Your task to perform on an android device: Clear the shopping cart on ebay.com. Search for bose soundlink mini on ebay.com, select the first entry, add it to the cart, then select checkout. Image 0: 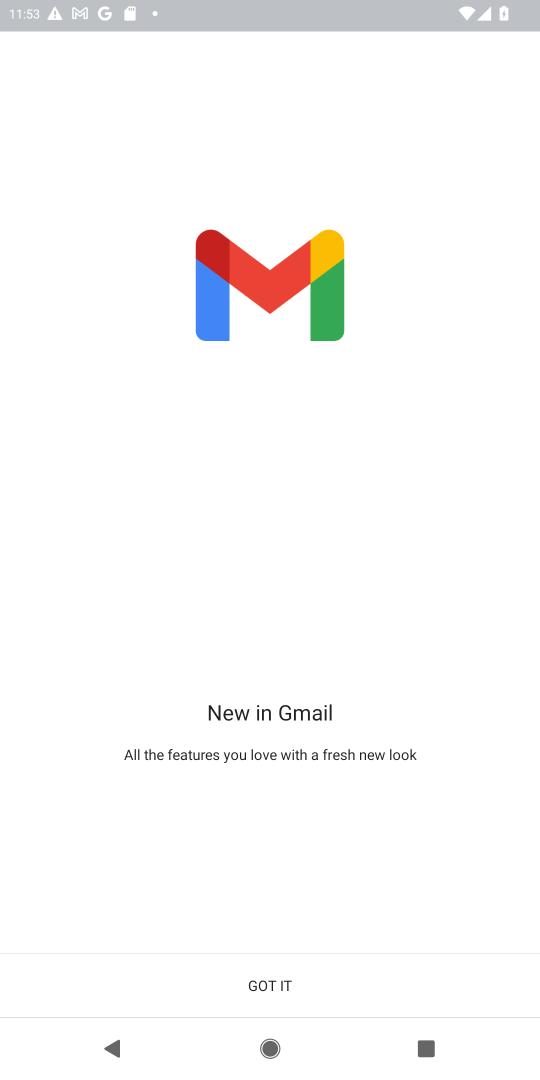
Step 0: press home button
Your task to perform on an android device: Clear the shopping cart on ebay.com. Search for bose soundlink mini on ebay.com, select the first entry, add it to the cart, then select checkout. Image 1: 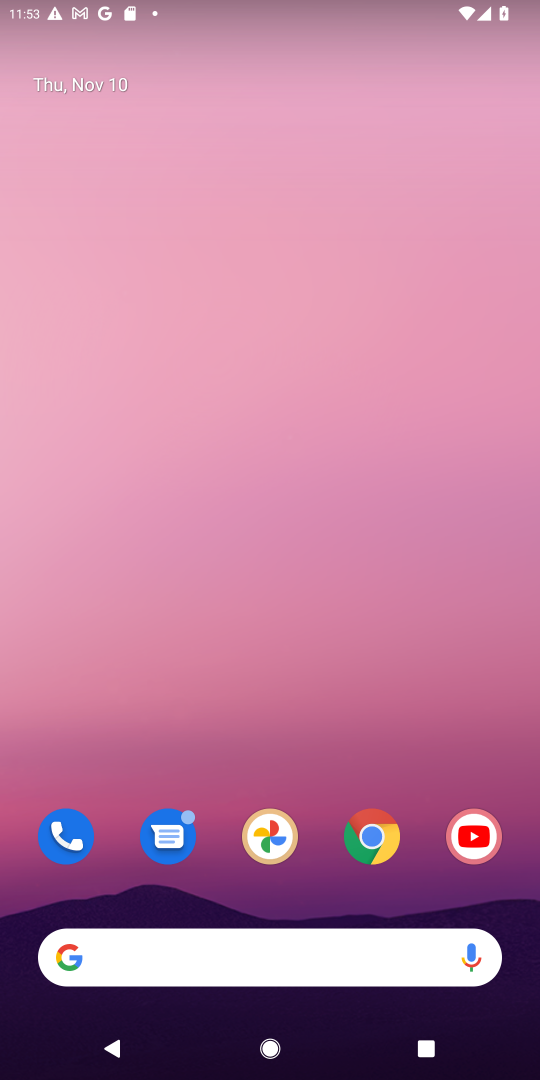
Step 1: click (273, 966)
Your task to perform on an android device: Clear the shopping cart on ebay.com. Search for bose soundlink mini on ebay.com, select the first entry, add it to the cart, then select checkout. Image 2: 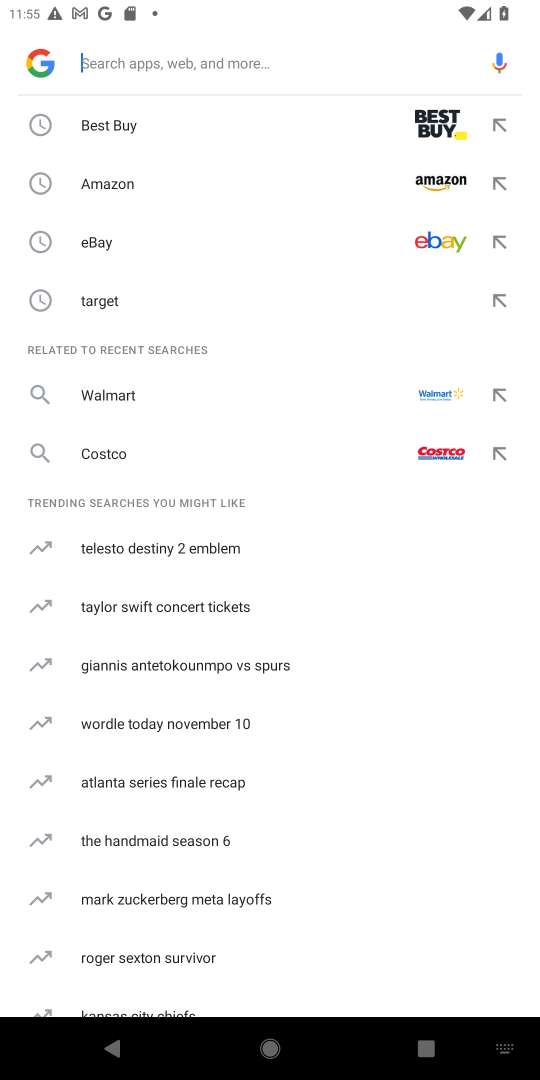
Step 2: click (129, 242)
Your task to perform on an android device: Clear the shopping cart on ebay.com. Search for bose soundlink mini on ebay.com, select the first entry, add it to the cart, then select checkout. Image 3: 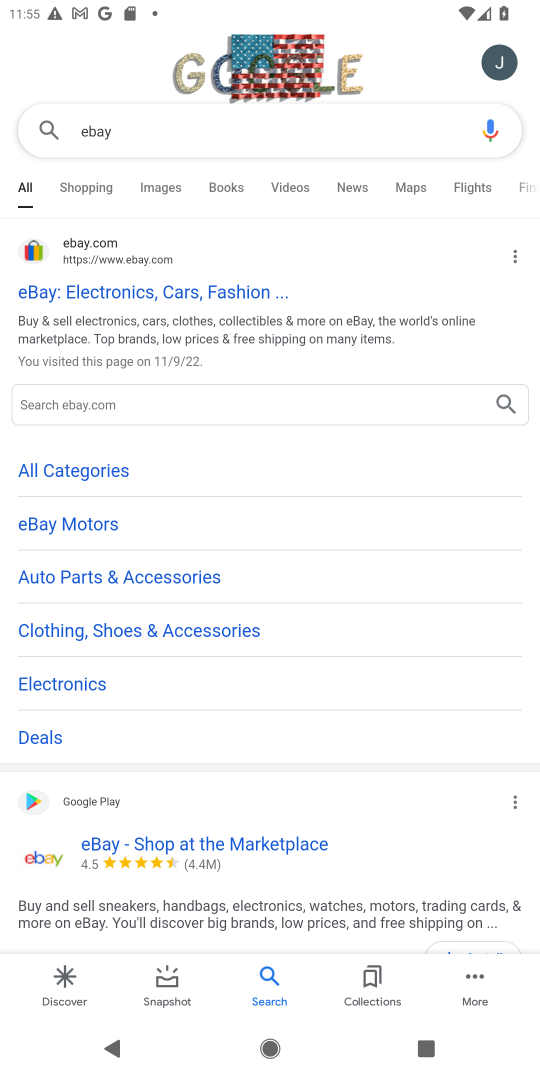
Step 3: click (101, 247)
Your task to perform on an android device: Clear the shopping cart on ebay.com. Search for bose soundlink mini on ebay.com, select the first entry, add it to the cart, then select checkout. Image 4: 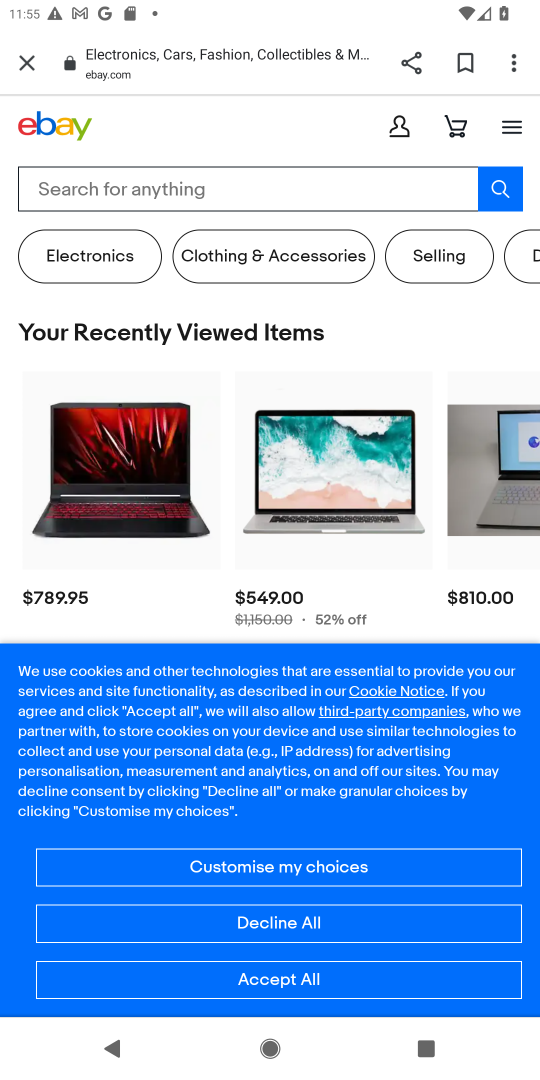
Step 4: click (241, 176)
Your task to perform on an android device: Clear the shopping cart on ebay.com. Search for bose soundlink mini on ebay.com, select the first entry, add it to the cart, then select checkout. Image 5: 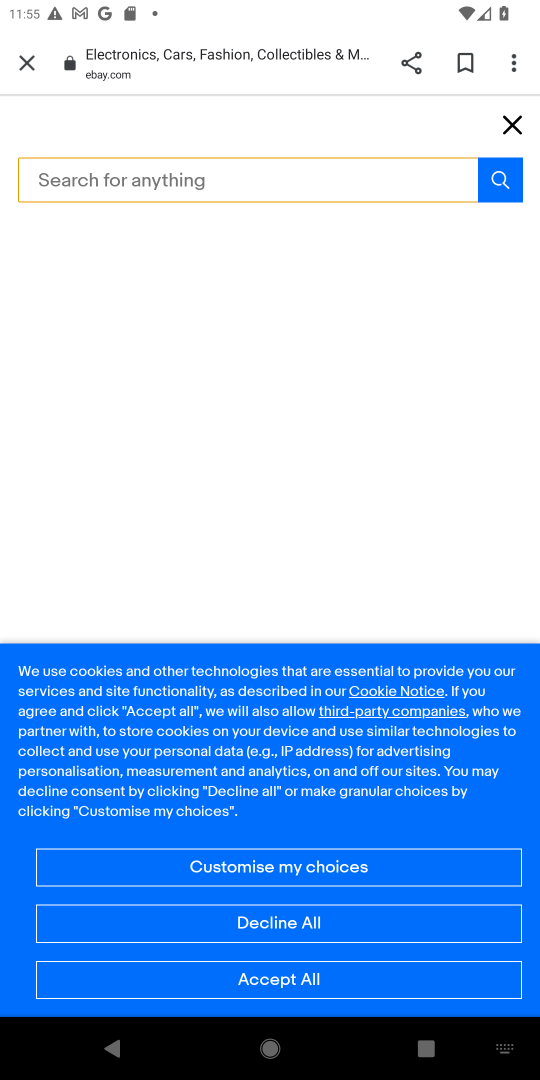
Step 5: type "bose soundlink mini"
Your task to perform on an android device: Clear the shopping cart on ebay.com. Search for bose soundlink mini on ebay.com, select the first entry, add it to the cart, then select checkout. Image 6: 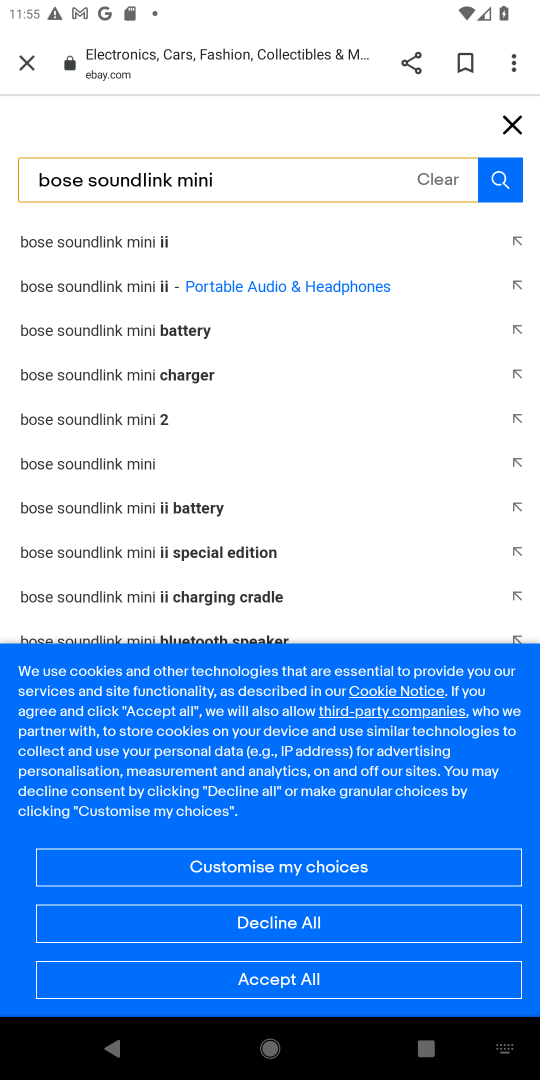
Step 6: click (139, 472)
Your task to perform on an android device: Clear the shopping cart on ebay.com. Search for bose soundlink mini on ebay.com, select the first entry, add it to the cart, then select checkout. Image 7: 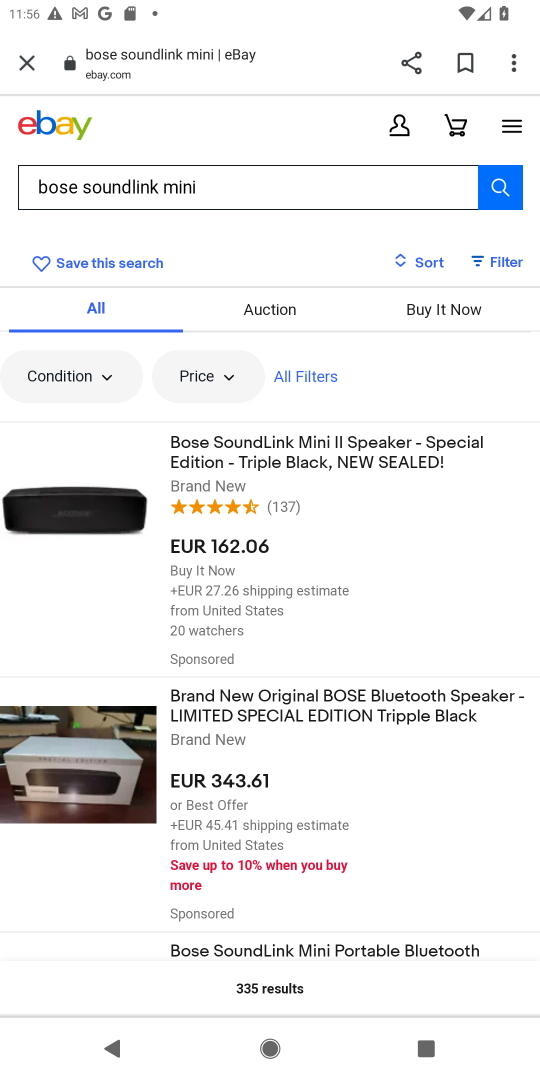
Step 7: click (219, 455)
Your task to perform on an android device: Clear the shopping cart on ebay.com. Search for bose soundlink mini on ebay.com, select the first entry, add it to the cart, then select checkout. Image 8: 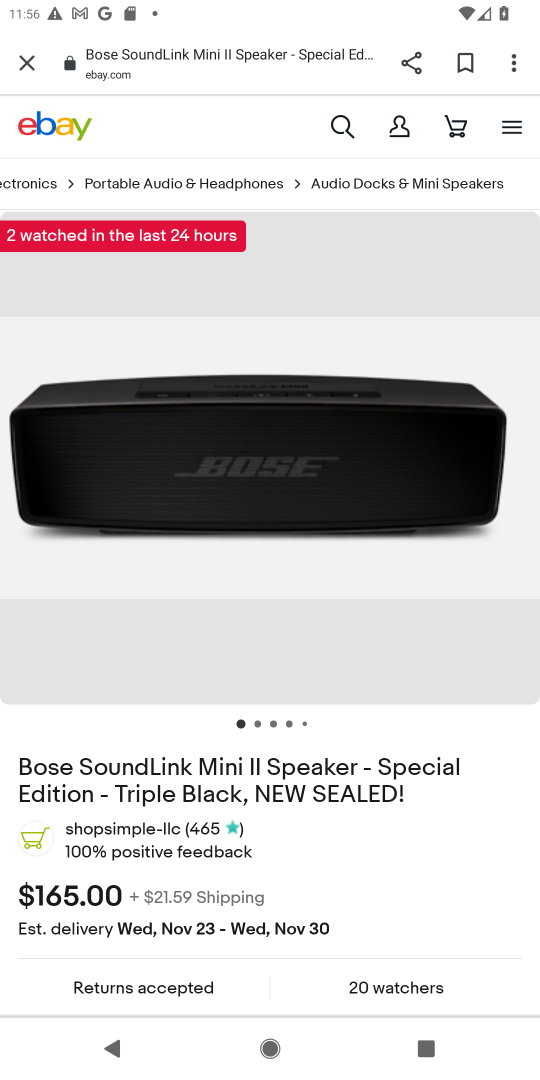
Step 8: click (277, 324)
Your task to perform on an android device: Clear the shopping cart on ebay.com. Search for bose soundlink mini on ebay.com, select the first entry, add it to the cart, then select checkout. Image 9: 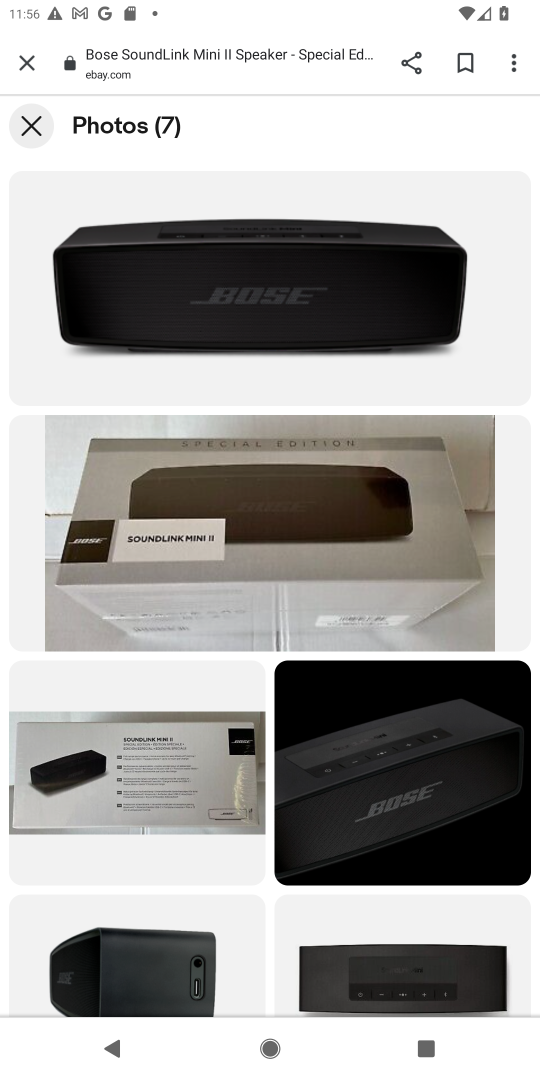
Step 9: click (230, 345)
Your task to perform on an android device: Clear the shopping cart on ebay.com. Search for bose soundlink mini on ebay.com, select the first entry, add it to the cart, then select checkout. Image 10: 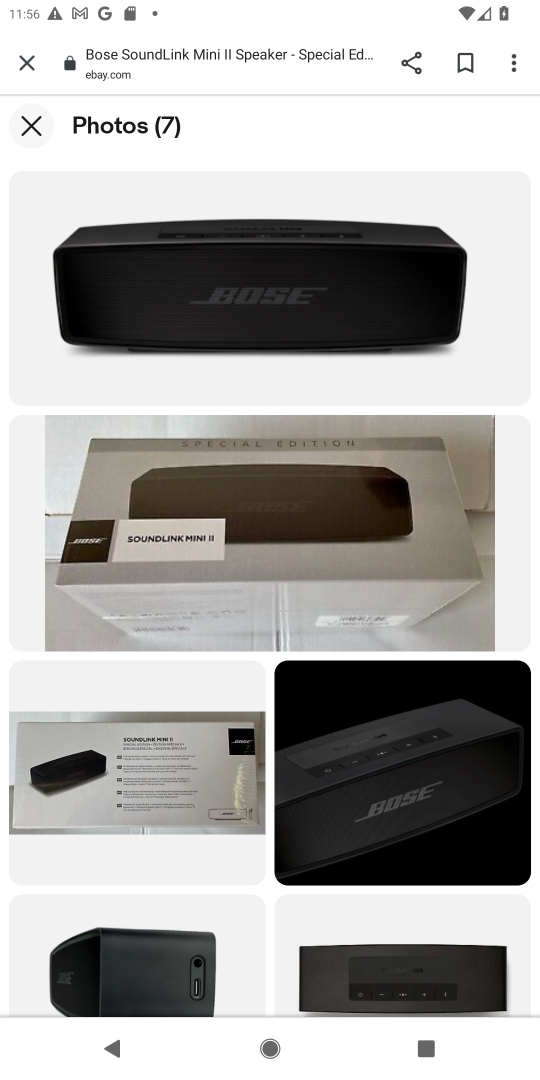
Step 10: click (27, 124)
Your task to perform on an android device: Clear the shopping cart on ebay.com. Search for bose soundlink mini on ebay.com, select the first entry, add it to the cart, then select checkout. Image 11: 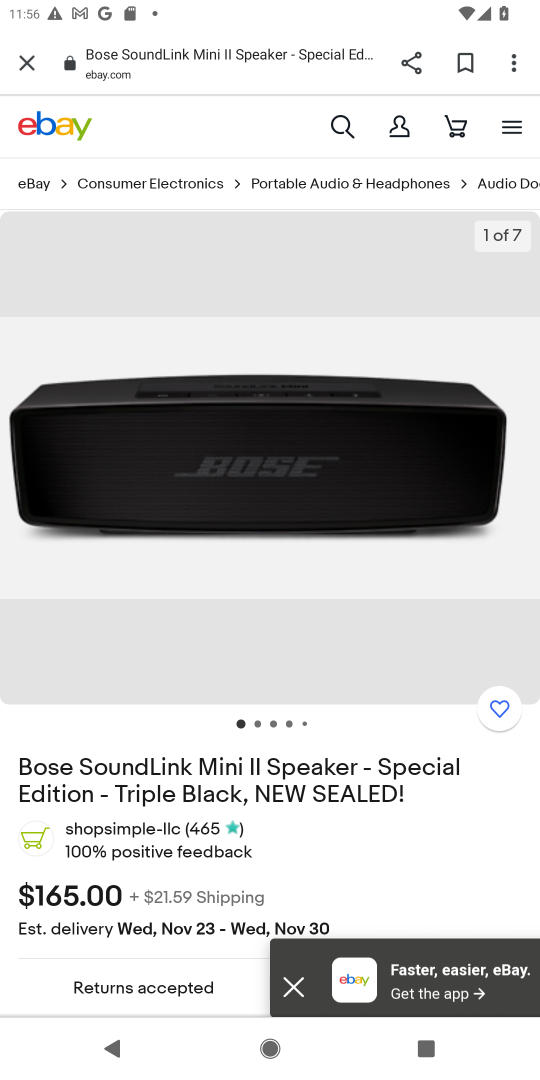
Step 11: drag from (191, 832) to (267, 549)
Your task to perform on an android device: Clear the shopping cart on ebay.com. Search for bose soundlink mini on ebay.com, select the first entry, add it to the cart, then select checkout. Image 12: 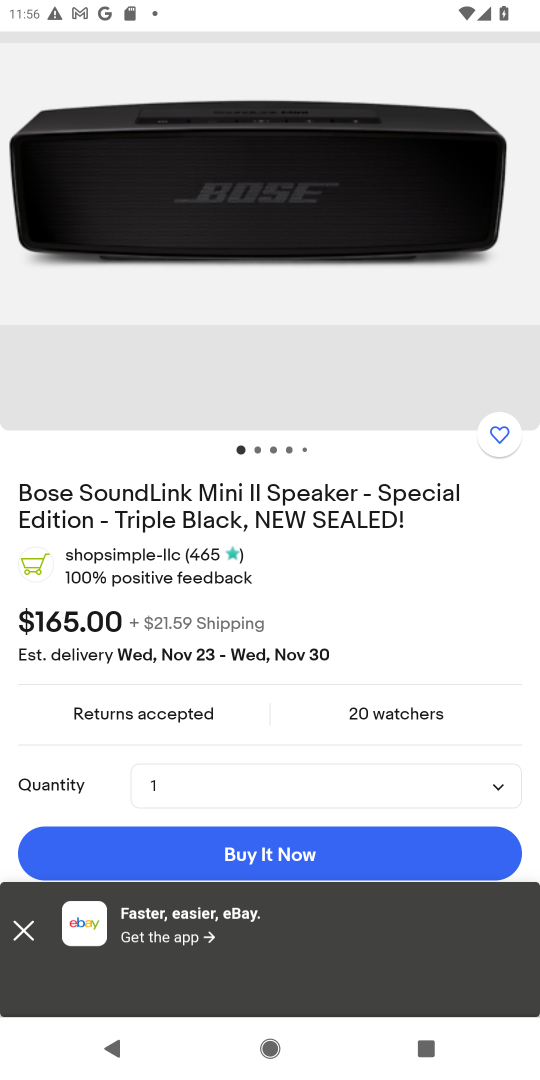
Step 12: drag from (310, 838) to (342, 470)
Your task to perform on an android device: Clear the shopping cart on ebay.com. Search for bose soundlink mini on ebay.com, select the first entry, add it to the cart, then select checkout. Image 13: 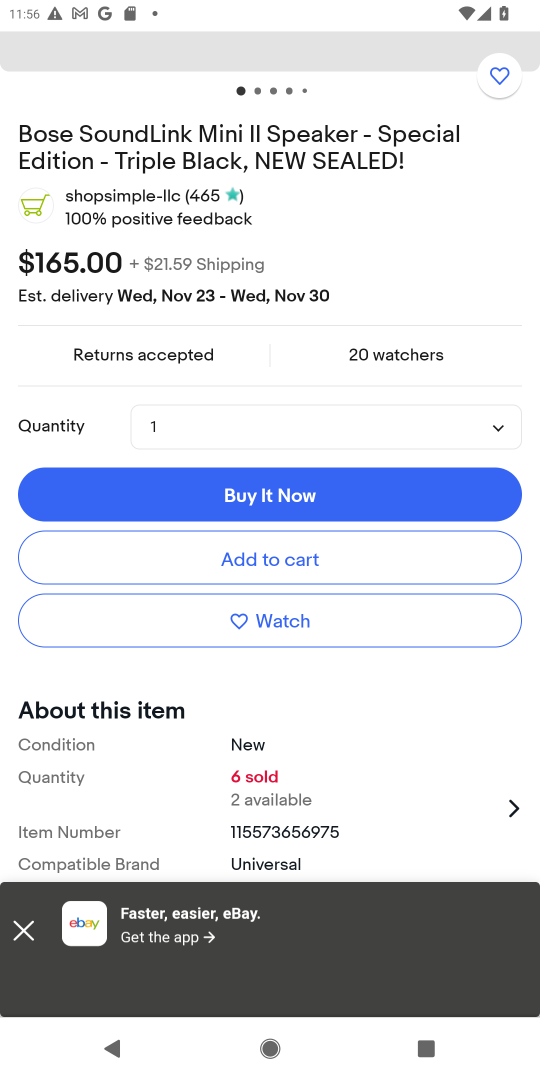
Step 13: click (20, 936)
Your task to perform on an android device: Clear the shopping cart on ebay.com. Search for bose soundlink mini on ebay.com, select the first entry, add it to the cart, then select checkout. Image 14: 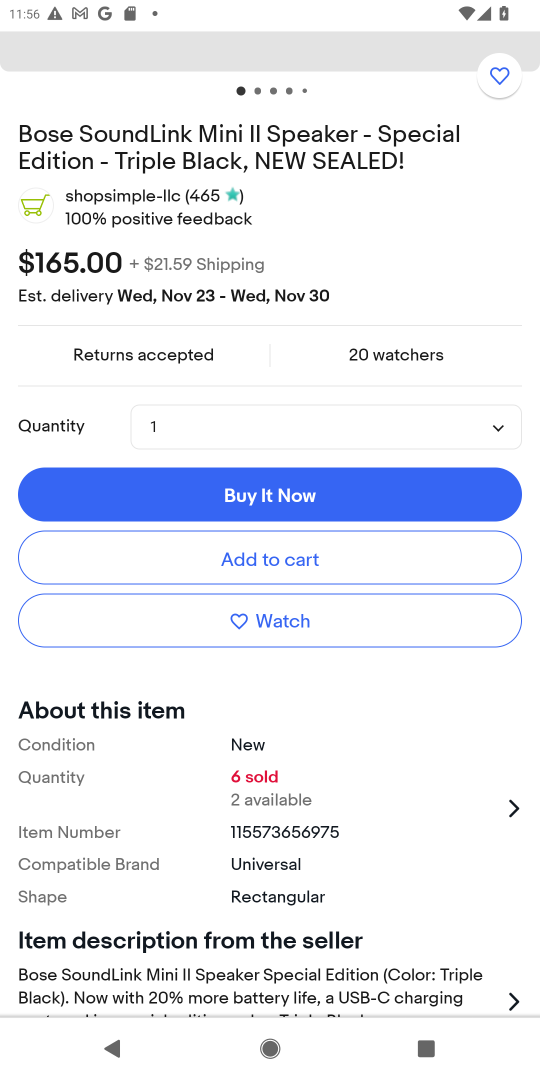
Step 14: click (251, 557)
Your task to perform on an android device: Clear the shopping cart on ebay.com. Search for bose soundlink mini on ebay.com, select the first entry, add it to the cart, then select checkout. Image 15: 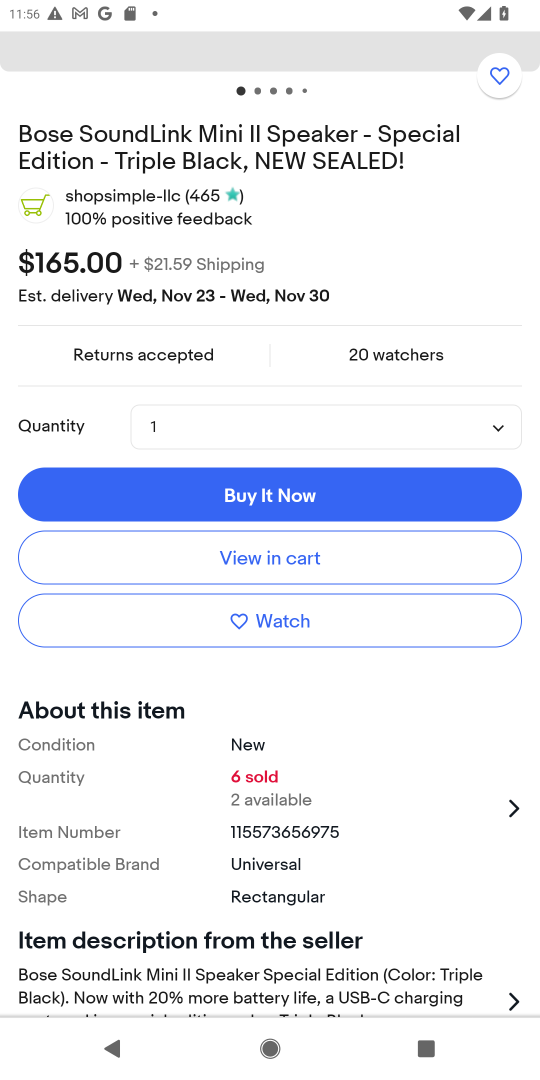
Step 15: click (251, 557)
Your task to perform on an android device: Clear the shopping cart on ebay.com. Search for bose soundlink mini on ebay.com, select the first entry, add it to the cart, then select checkout. Image 16: 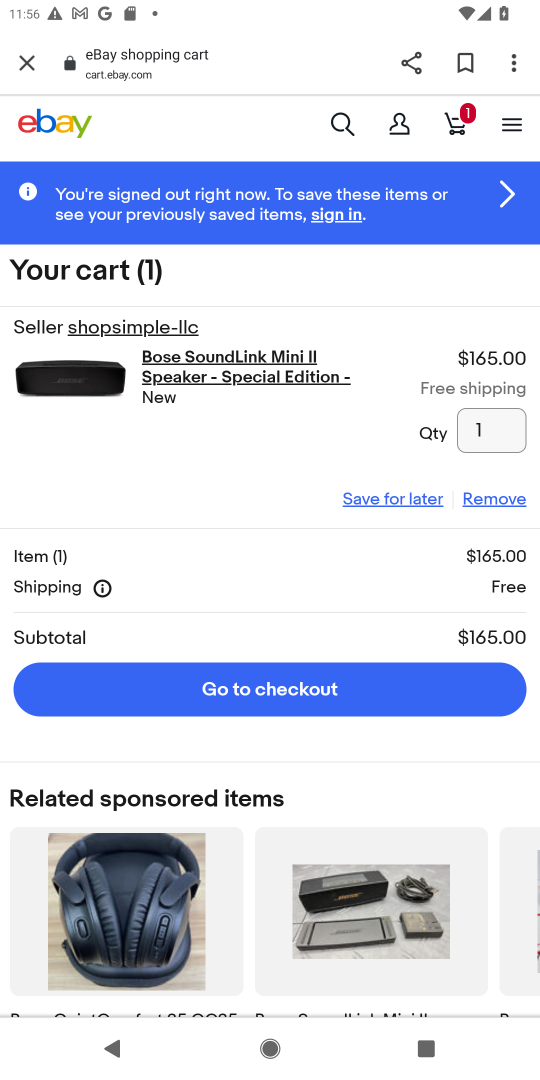
Step 16: click (264, 695)
Your task to perform on an android device: Clear the shopping cart on ebay.com. Search for bose soundlink mini on ebay.com, select the first entry, add it to the cart, then select checkout. Image 17: 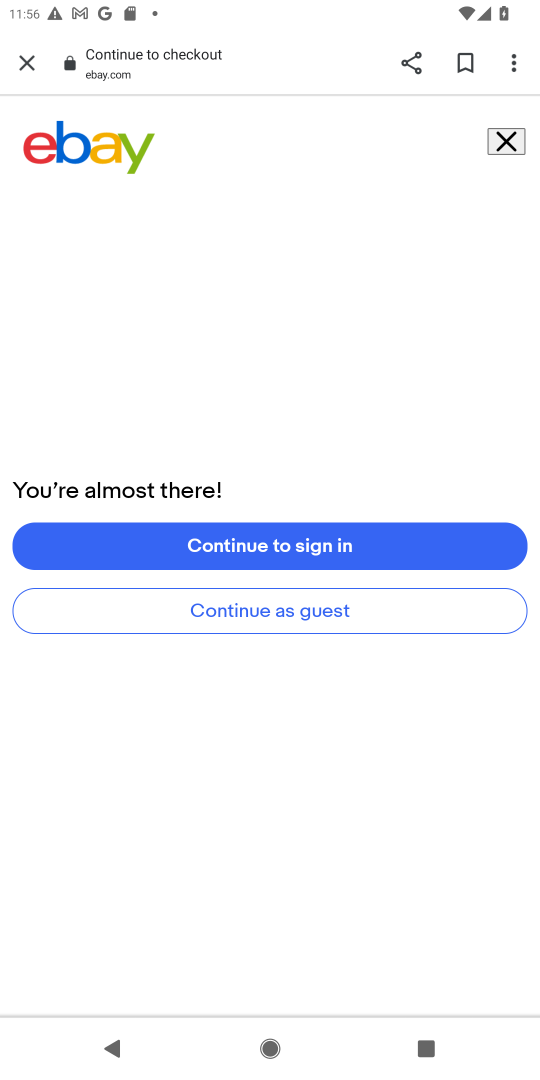
Step 17: task complete